Your task to perform on an android device: Open internet settings Image 0: 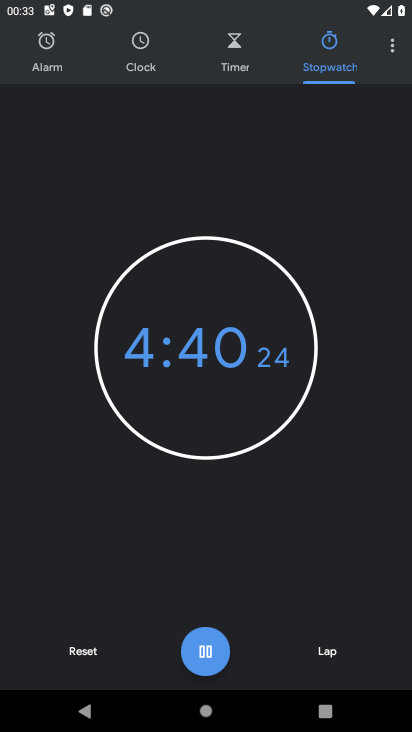
Step 0: press home button
Your task to perform on an android device: Open internet settings Image 1: 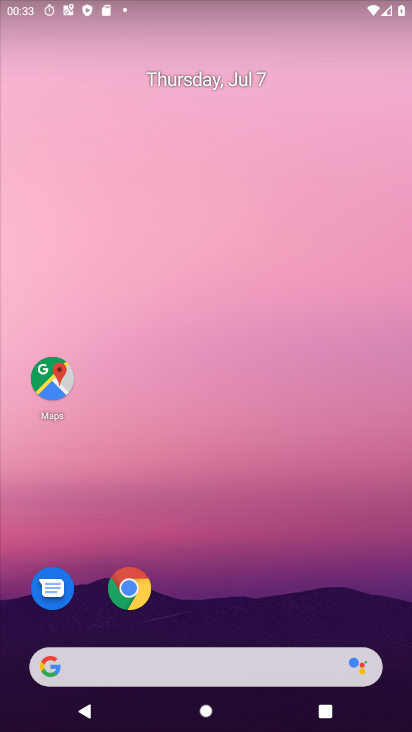
Step 1: drag from (241, 701) to (232, 154)
Your task to perform on an android device: Open internet settings Image 2: 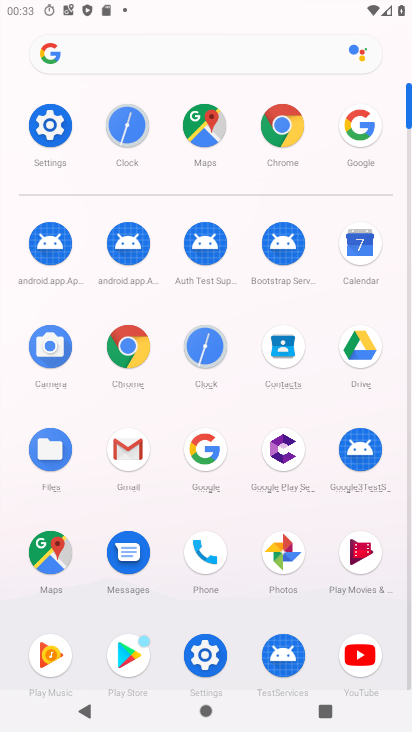
Step 2: click (47, 131)
Your task to perform on an android device: Open internet settings Image 3: 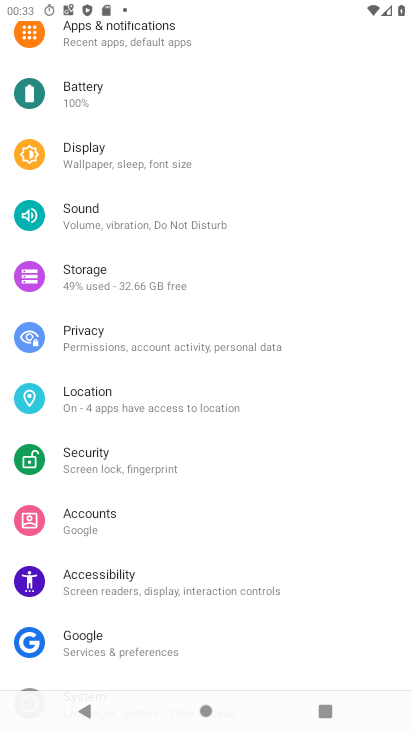
Step 3: drag from (183, 142) to (178, 521)
Your task to perform on an android device: Open internet settings Image 4: 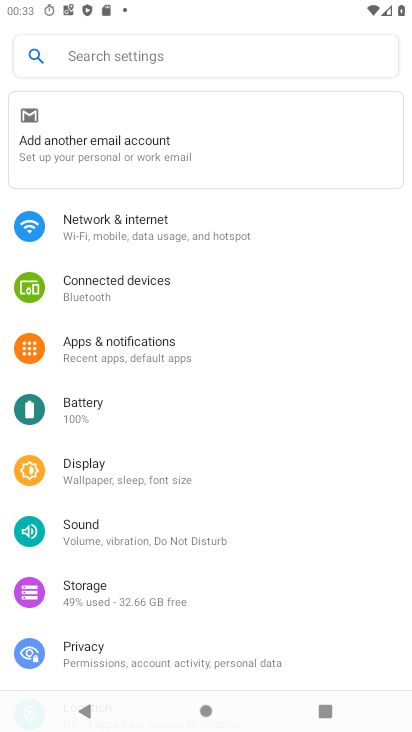
Step 4: click (133, 236)
Your task to perform on an android device: Open internet settings Image 5: 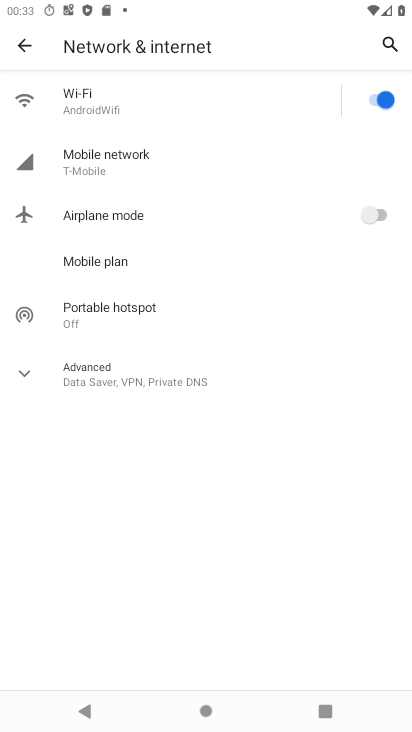
Step 5: task complete